Your task to perform on an android device: turn off picture-in-picture Image 0: 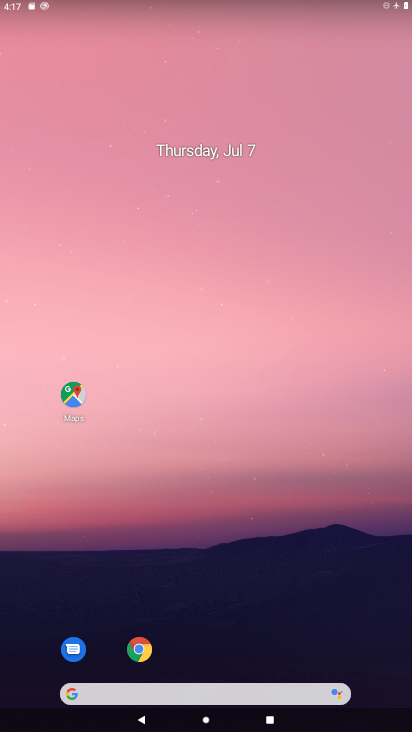
Step 0: drag from (348, 176) to (312, 192)
Your task to perform on an android device: turn off picture-in-picture Image 1: 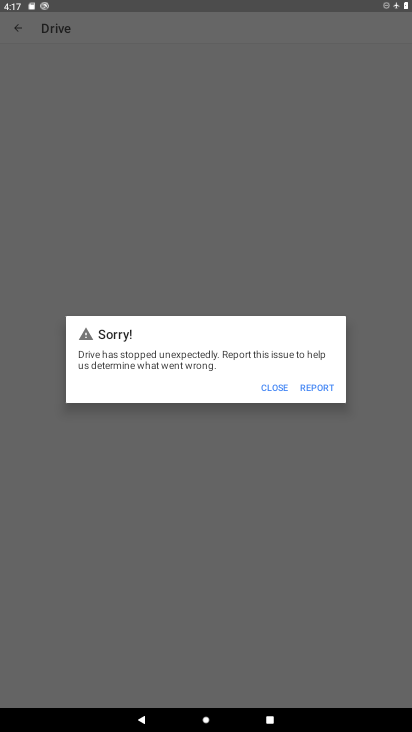
Step 1: press home button
Your task to perform on an android device: turn off picture-in-picture Image 2: 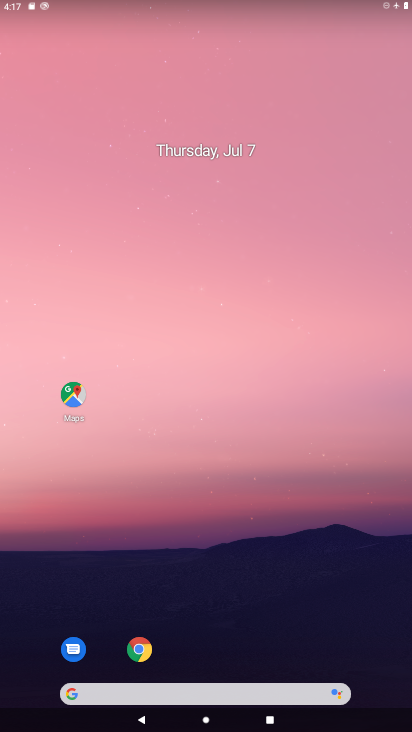
Step 2: drag from (371, 657) to (325, 158)
Your task to perform on an android device: turn off picture-in-picture Image 3: 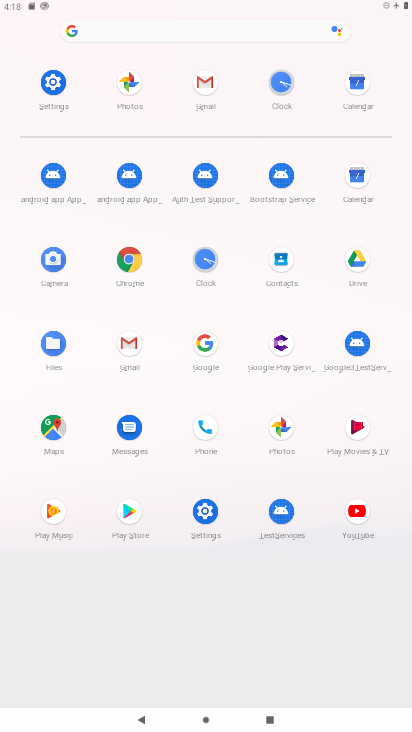
Step 3: click (205, 512)
Your task to perform on an android device: turn off picture-in-picture Image 4: 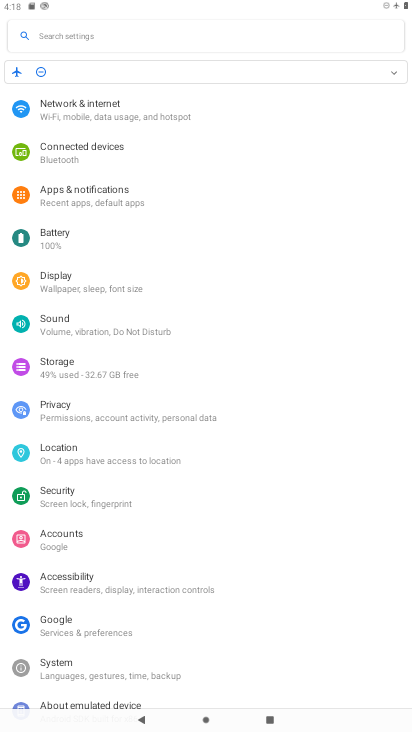
Step 4: click (82, 185)
Your task to perform on an android device: turn off picture-in-picture Image 5: 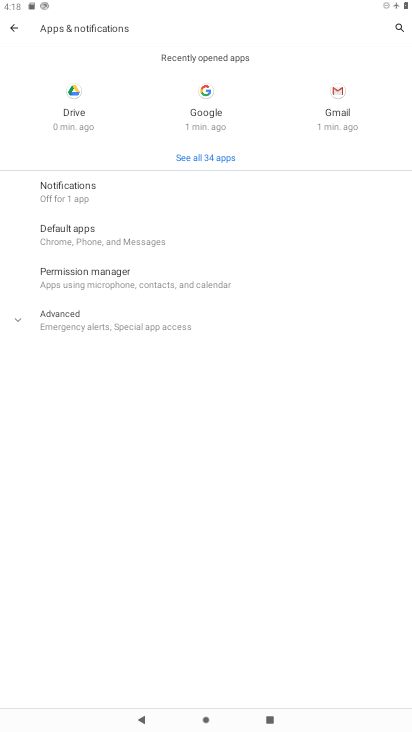
Step 5: click (44, 325)
Your task to perform on an android device: turn off picture-in-picture Image 6: 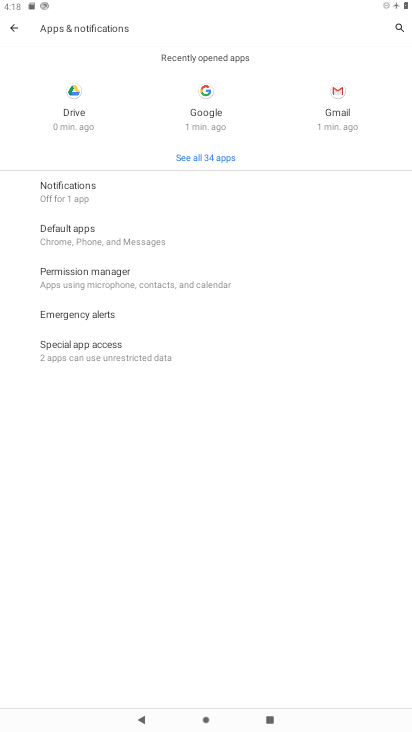
Step 6: click (63, 348)
Your task to perform on an android device: turn off picture-in-picture Image 7: 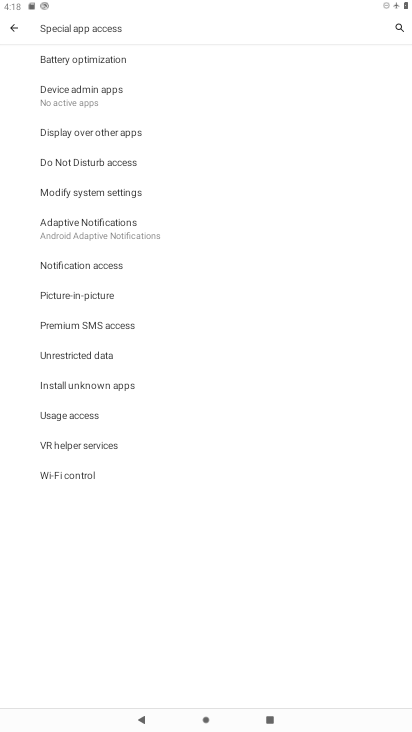
Step 7: click (64, 293)
Your task to perform on an android device: turn off picture-in-picture Image 8: 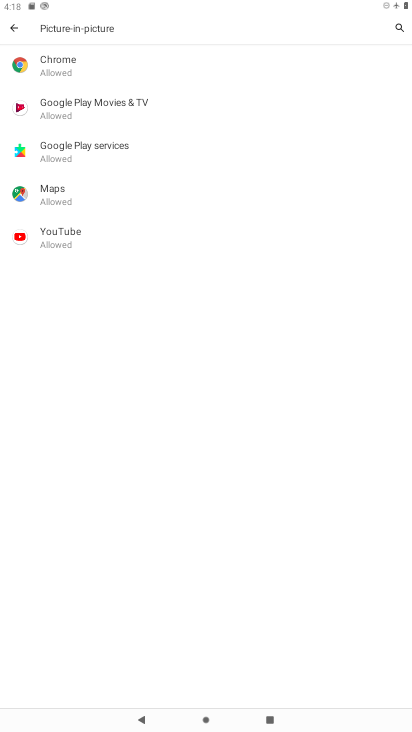
Step 8: click (67, 238)
Your task to perform on an android device: turn off picture-in-picture Image 9: 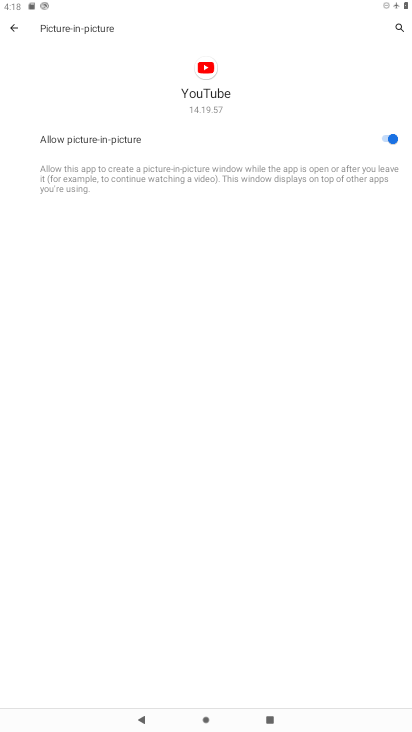
Step 9: click (385, 137)
Your task to perform on an android device: turn off picture-in-picture Image 10: 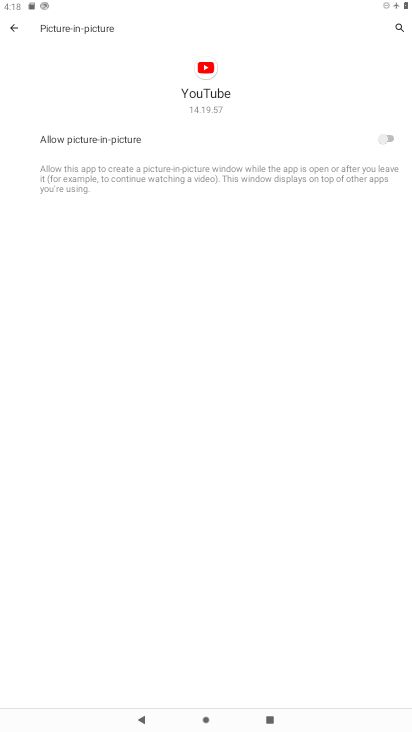
Step 10: task complete